Your task to perform on an android device: choose inbox layout in the gmail app Image 0: 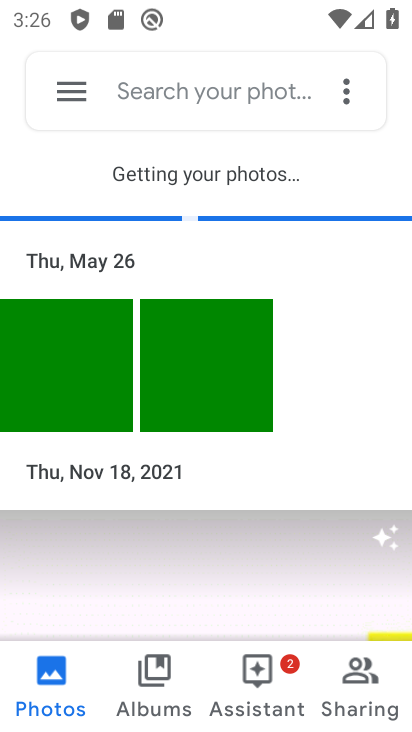
Step 0: press home button
Your task to perform on an android device: choose inbox layout in the gmail app Image 1: 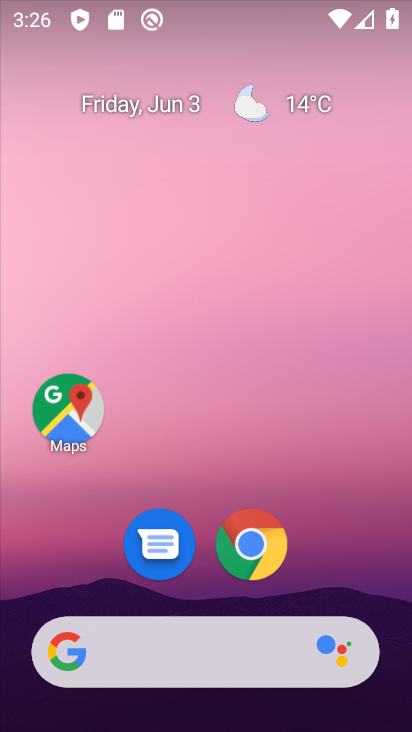
Step 1: drag from (68, 603) to (200, 171)
Your task to perform on an android device: choose inbox layout in the gmail app Image 2: 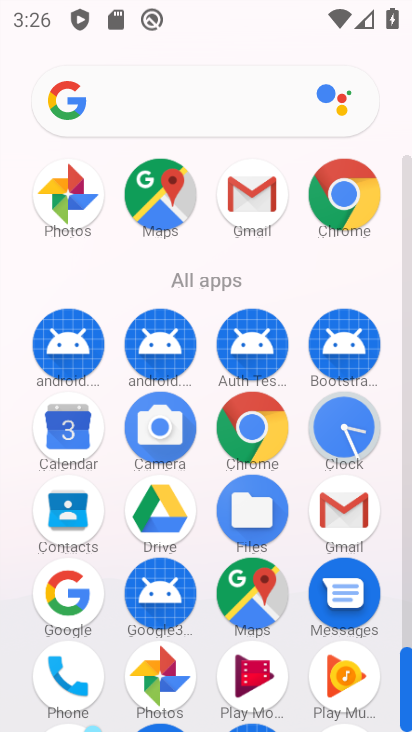
Step 2: drag from (189, 571) to (252, 354)
Your task to perform on an android device: choose inbox layout in the gmail app Image 3: 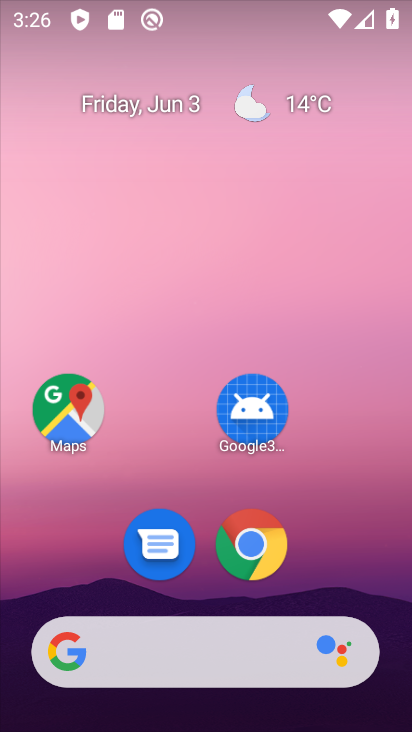
Step 3: drag from (298, 595) to (379, 133)
Your task to perform on an android device: choose inbox layout in the gmail app Image 4: 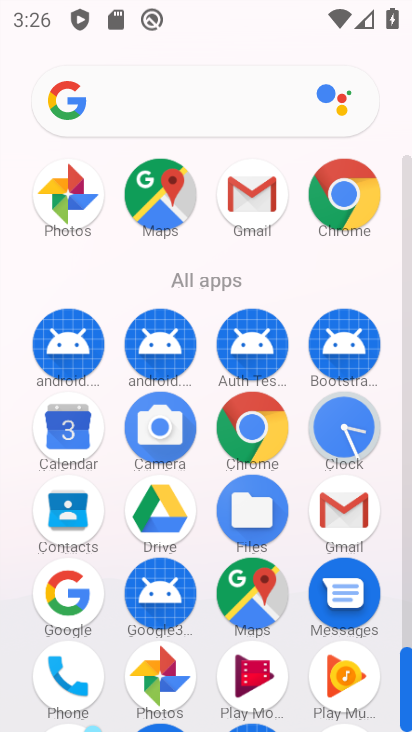
Step 4: drag from (145, 576) to (215, 363)
Your task to perform on an android device: choose inbox layout in the gmail app Image 5: 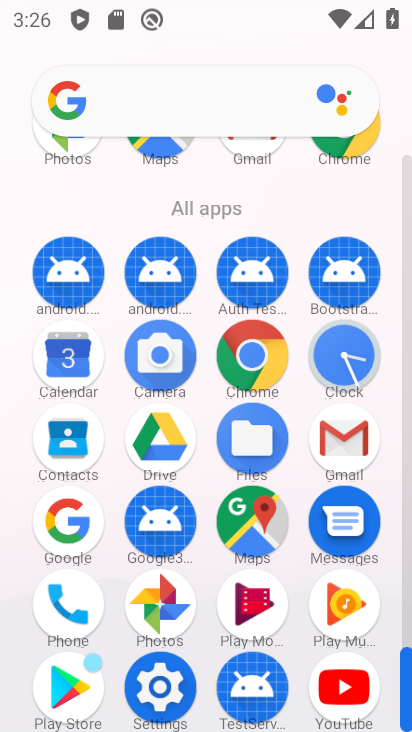
Step 5: click (355, 444)
Your task to perform on an android device: choose inbox layout in the gmail app Image 6: 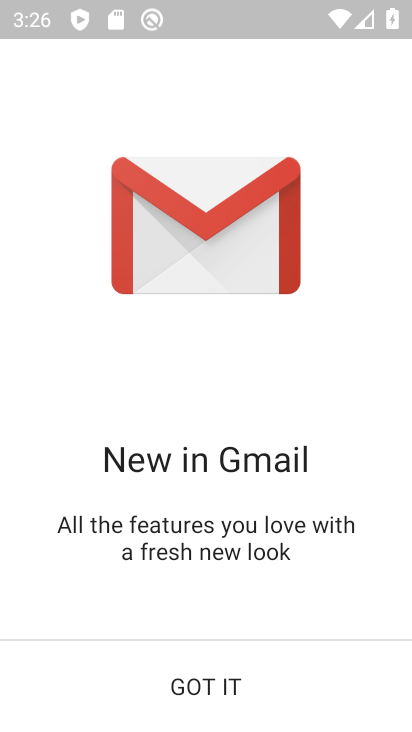
Step 6: click (207, 679)
Your task to perform on an android device: choose inbox layout in the gmail app Image 7: 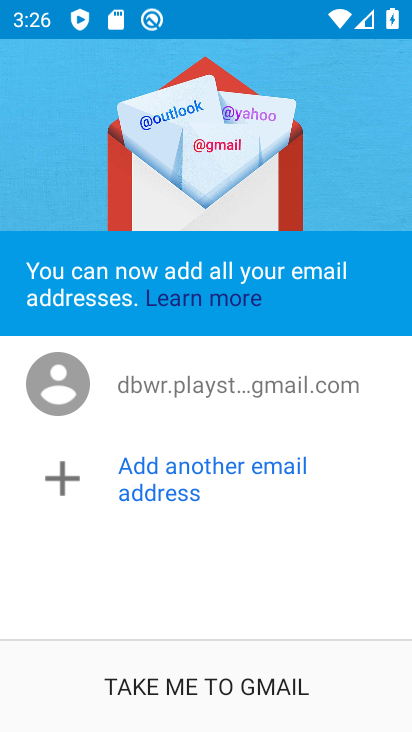
Step 7: click (207, 679)
Your task to perform on an android device: choose inbox layout in the gmail app Image 8: 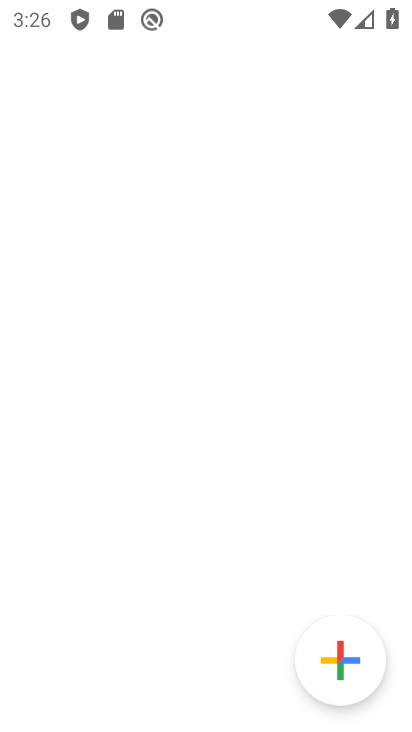
Step 8: click (209, 679)
Your task to perform on an android device: choose inbox layout in the gmail app Image 9: 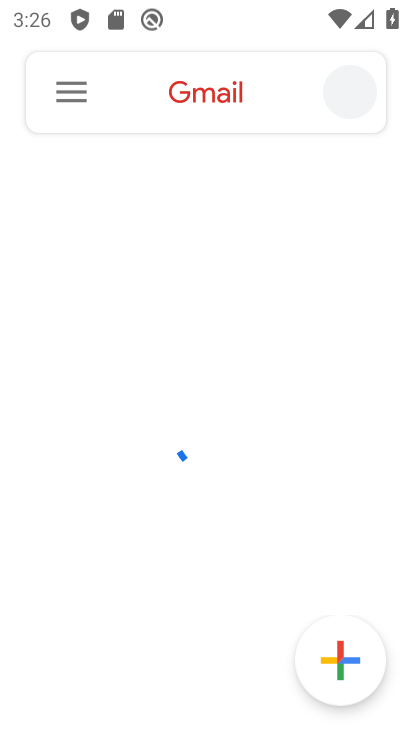
Step 9: click (56, 78)
Your task to perform on an android device: choose inbox layout in the gmail app Image 10: 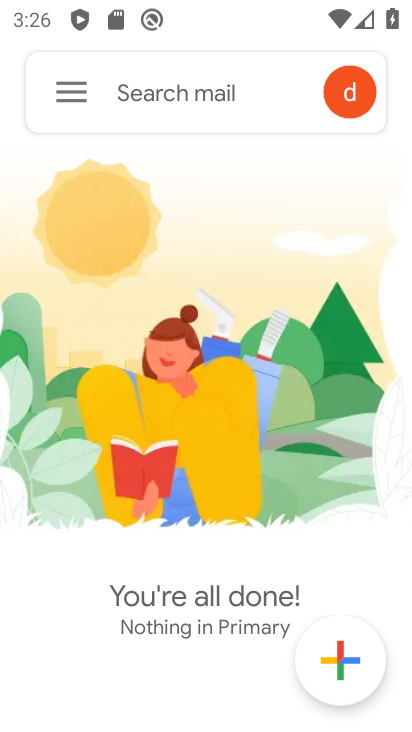
Step 10: click (54, 112)
Your task to perform on an android device: choose inbox layout in the gmail app Image 11: 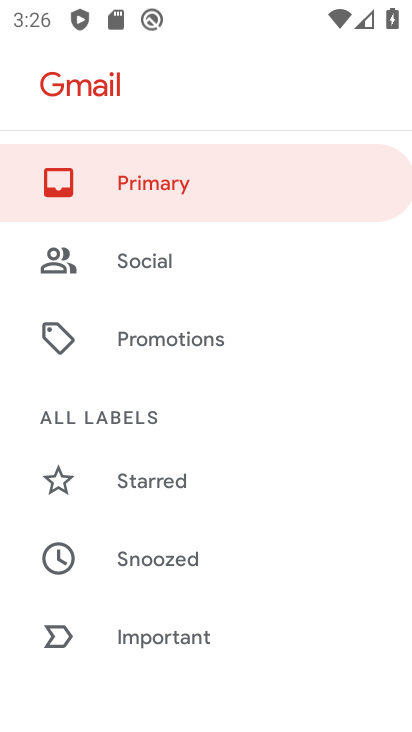
Step 11: drag from (153, 589) to (246, 160)
Your task to perform on an android device: choose inbox layout in the gmail app Image 12: 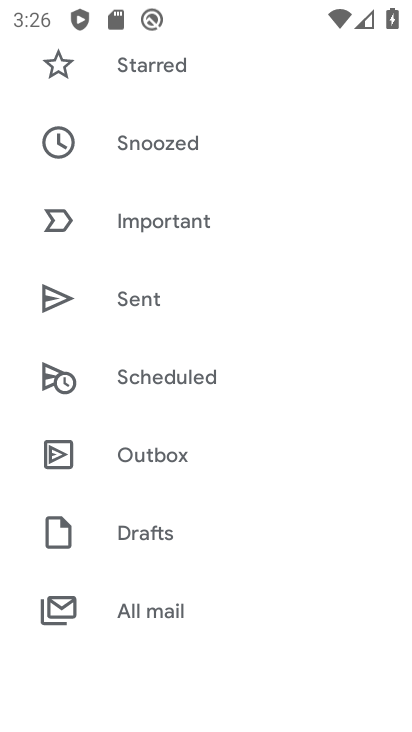
Step 12: drag from (208, 554) to (304, 135)
Your task to perform on an android device: choose inbox layout in the gmail app Image 13: 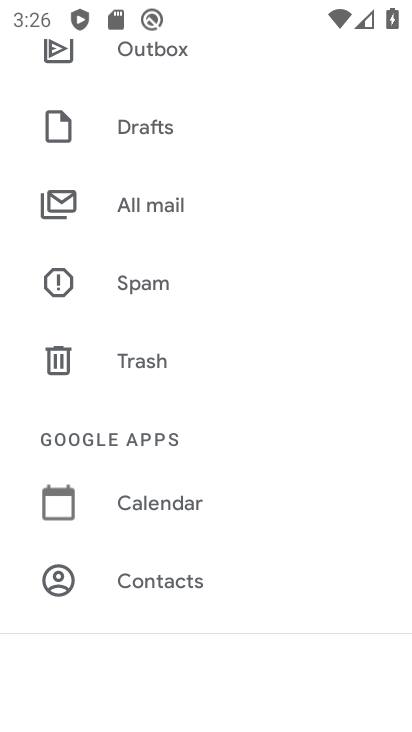
Step 13: drag from (201, 576) to (265, 292)
Your task to perform on an android device: choose inbox layout in the gmail app Image 14: 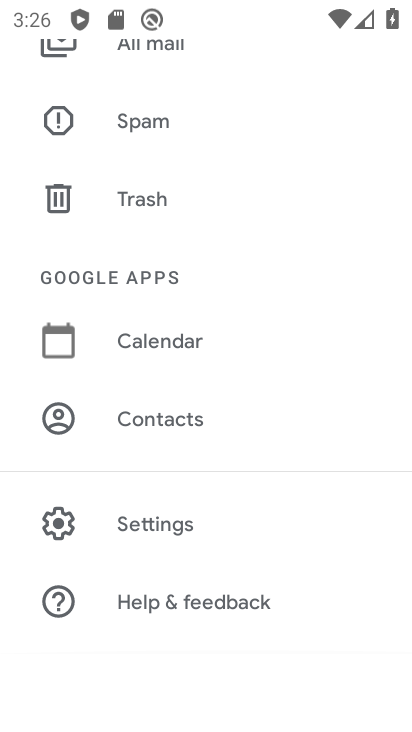
Step 14: click (197, 529)
Your task to perform on an android device: choose inbox layout in the gmail app Image 15: 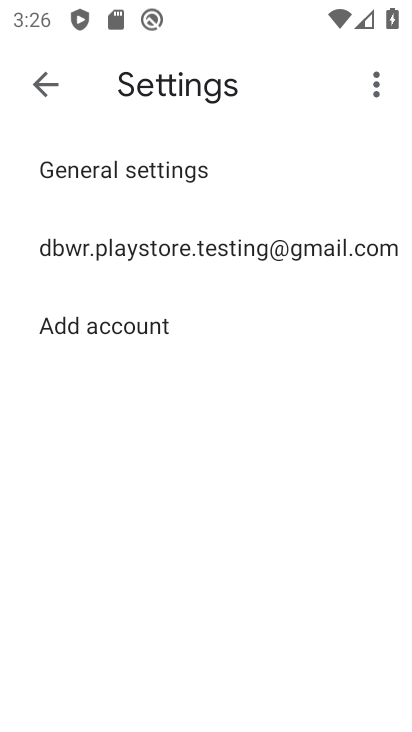
Step 15: click (294, 263)
Your task to perform on an android device: choose inbox layout in the gmail app Image 16: 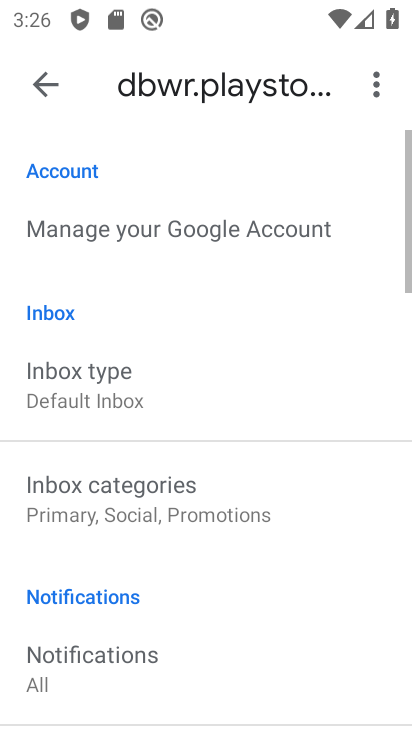
Step 16: click (272, 388)
Your task to perform on an android device: choose inbox layout in the gmail app Image 17: 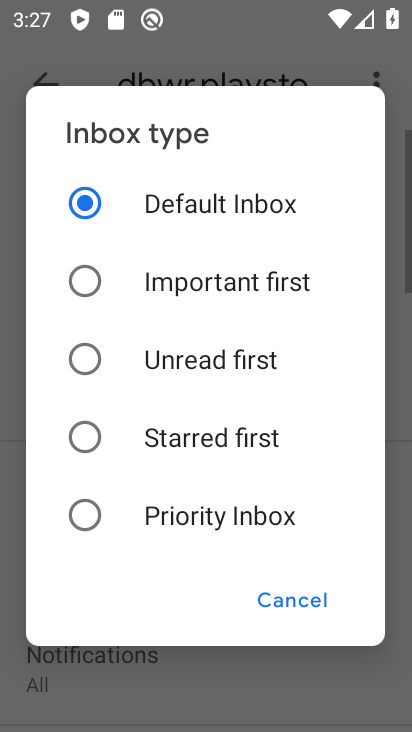
Step 17: click (239, 527)
Your task to perform on an android device: choose inbox layout in the gmail app Image 18: 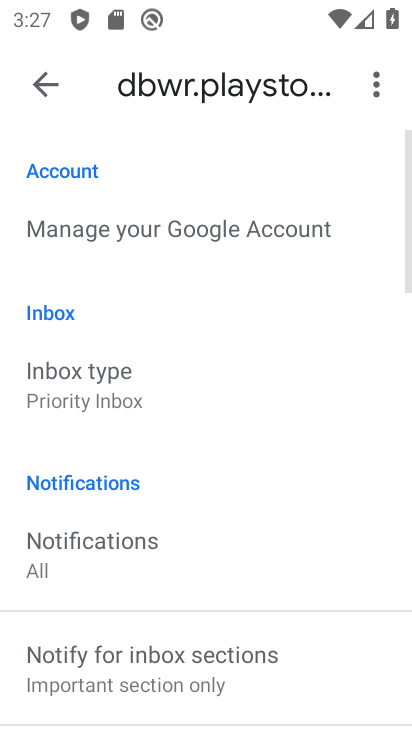
Step 18: task complete